Your task to perform on an android device: turn off data saver in the chrome app Image 0: 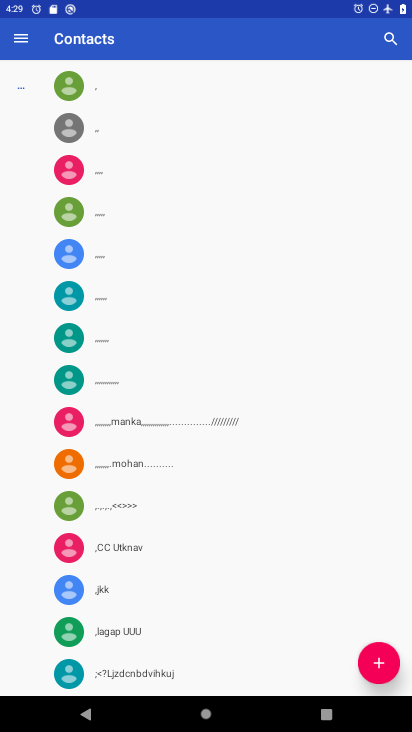
Step 0: press home button
Your task to perform on an android device: turn off data saver in the chrome app Image 1: 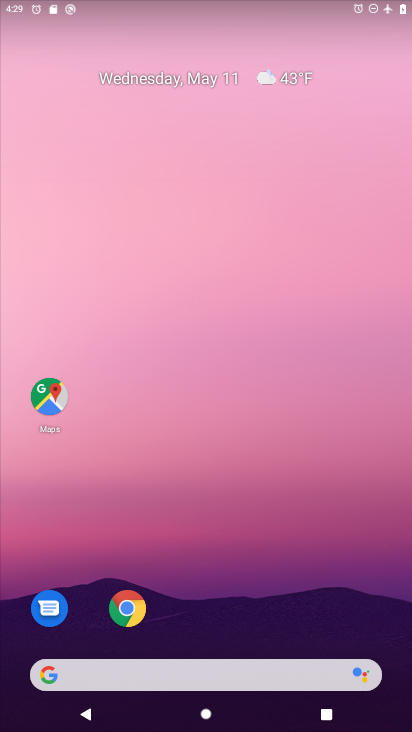
Step 1: click (133, 611)
Your task to perform on an android device: turn off data saver in the chrome app Image 2: 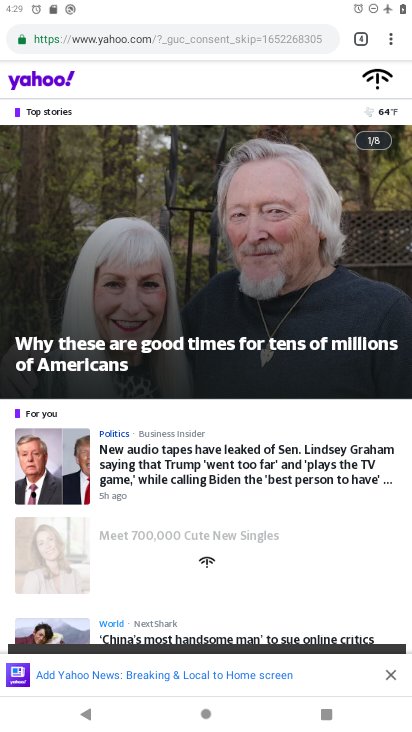
Step 2: click (393, 42)
Your task to perform on an android device: turn off data saver in the chrome app Image 3: 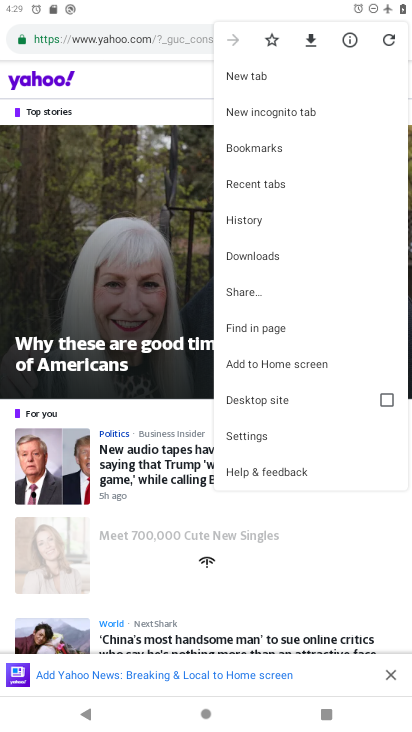
Step 3: click (245, 430)
Your task to perform on an android device: turn off data saver in the chrome app Image 4: 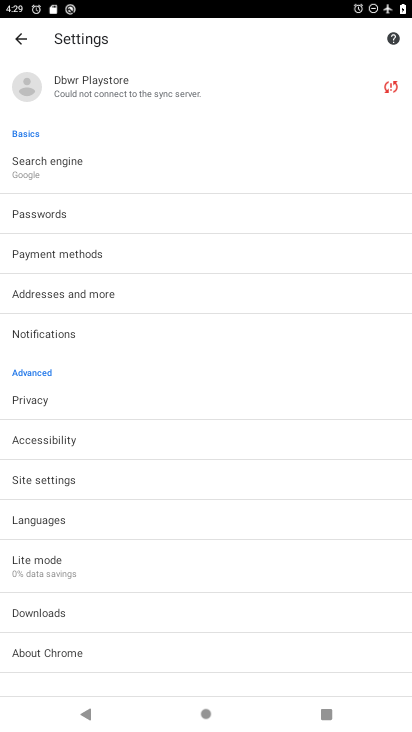
Step 4: click (32, 559)
Your task to perform on an android device: turn off data saver in the chrome app Image 5: 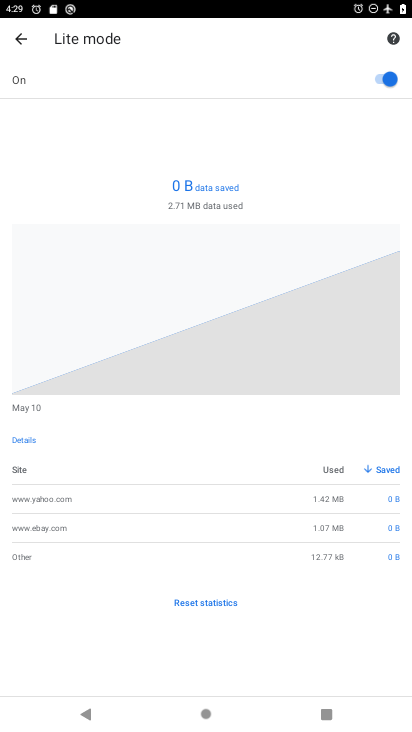
Step 5: click (380, 77)
Your task to perform on an android device: turn off data saver in the chrome app Image 6: 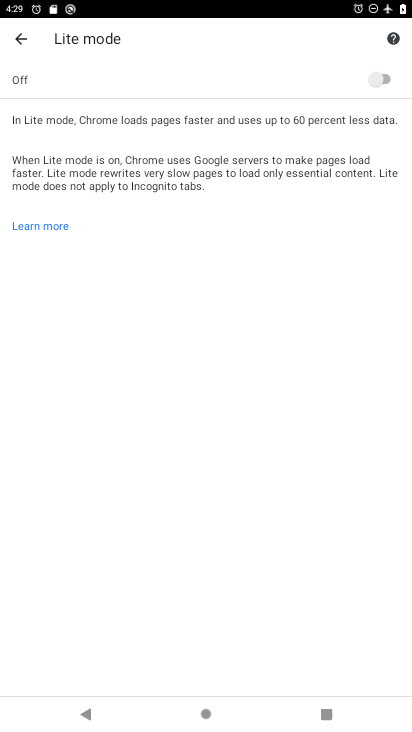
Step 6: task complete